Your task to perform on an android device: make emails show in primary in the gmail app Image 0: 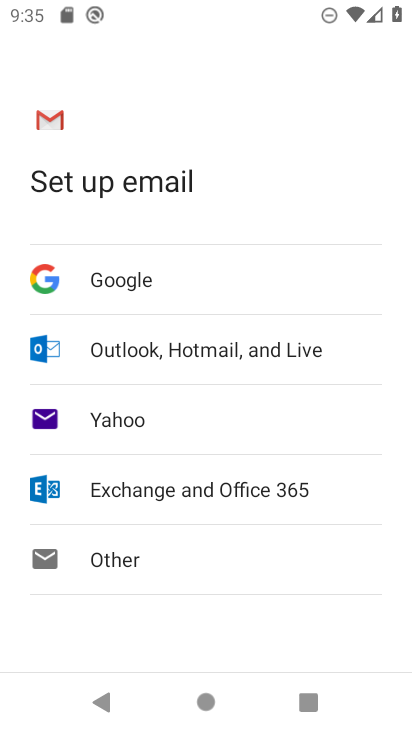
Step 0: press home button
Your task to perform on an android device: make emails show in primary in the gmail app Image 1: 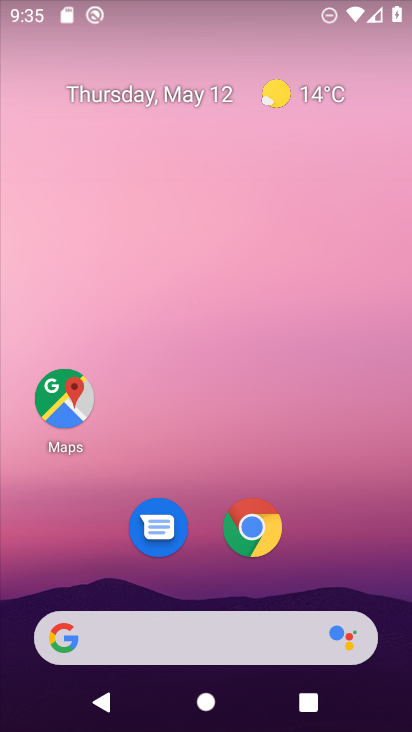
Step 1: drag from (308, 591) to (333, 115)
Your task to perform on an android device: make emails show in primary in the gmail app Image 2: 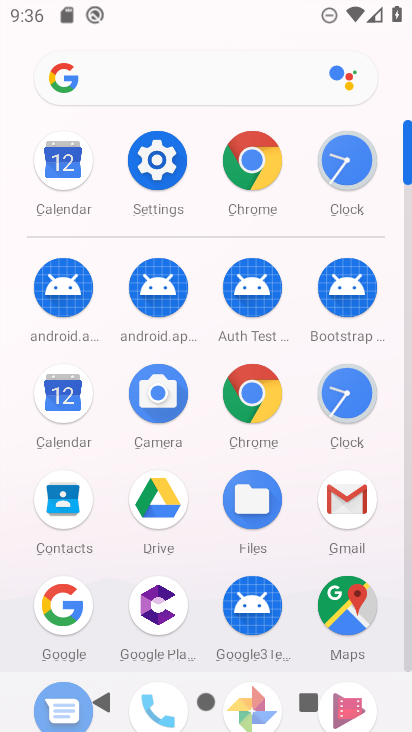
Step 2: click (336, 530)
Your task to perform on an android device: make emails show in primary in the gmail app Image 3: 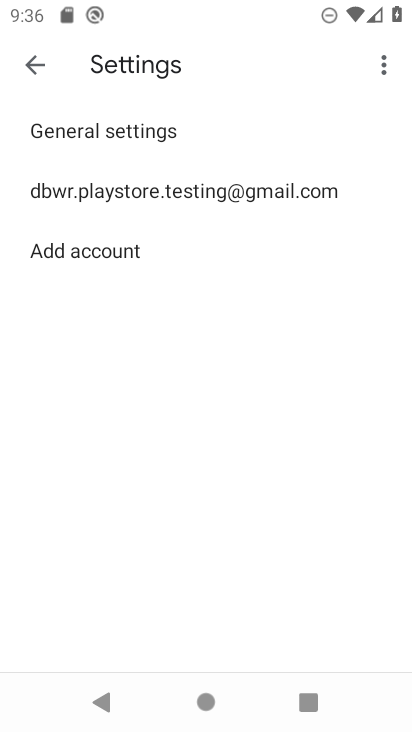
Step 3: click (150, 177)
Your task to perform on an android device: make emails show in primary in the gmail app Image 4: 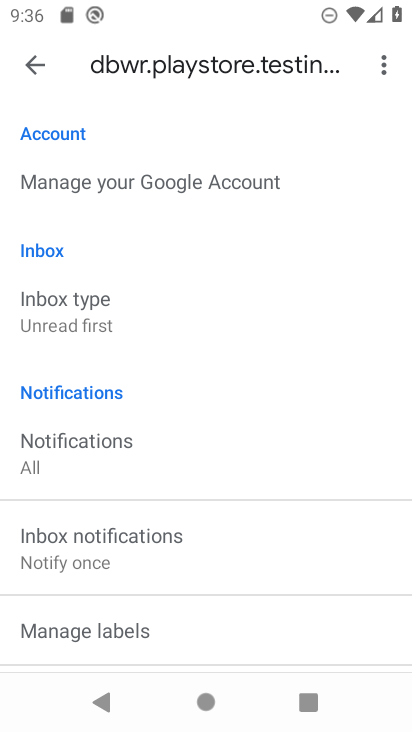
Step 4: drag from (174, 300) to (187, 643)
Your task to perform on an android device: make emails show in primary in the gmail app Image 5: 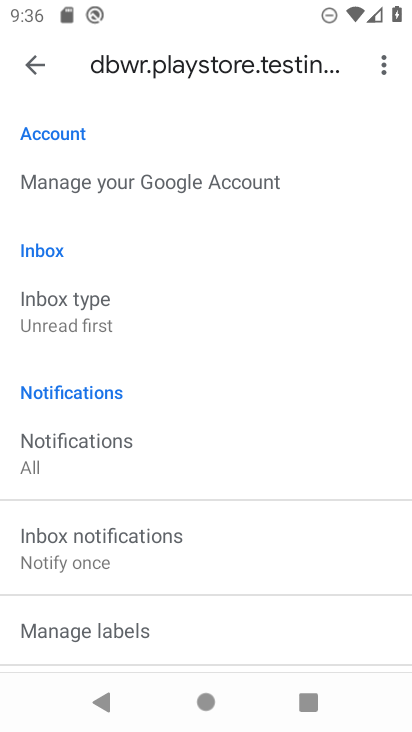
Step 5: drag from (187, 577) to (210, 451)
Your task to perform on an android device: make emails show in primary in the gmail app Image 6: 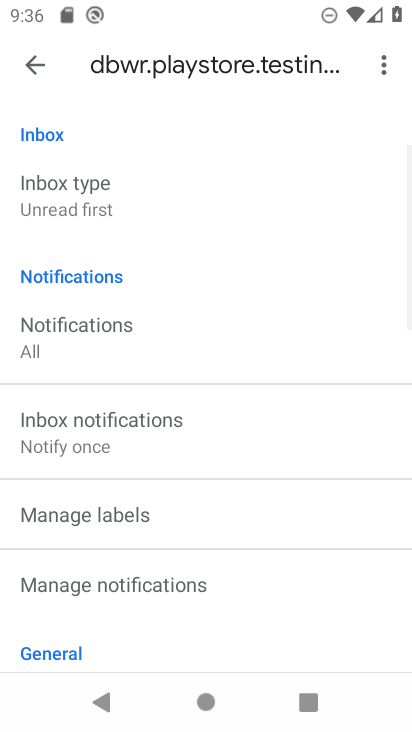
Step 6: click (210, 227)
Your task to perform on an android device: make emails show in primary in the gmail app Image 7: 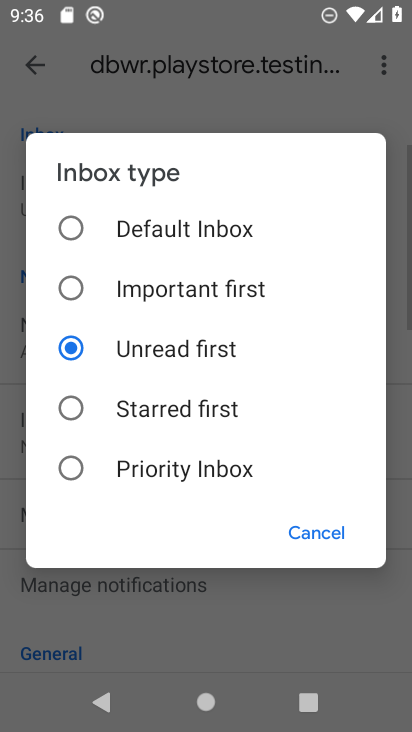
Step 7: click (182, 453)
Your task to perform on an android device: make emails show in primary in the gmail app Image 8: 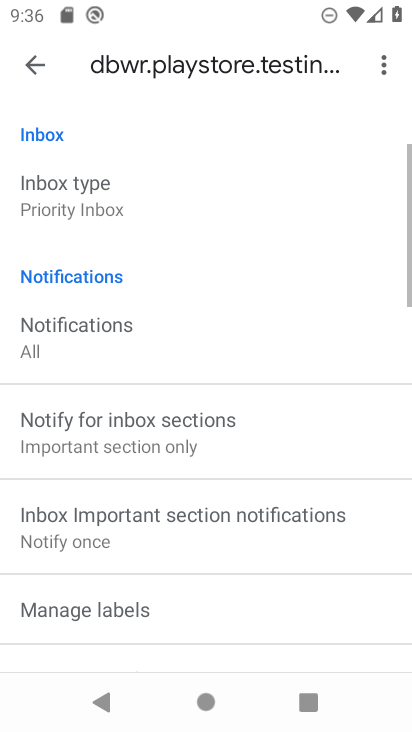
Step 8: task complete